Your task to perform on an android device: Search for seafood restaurants on Google Maps Image 0: 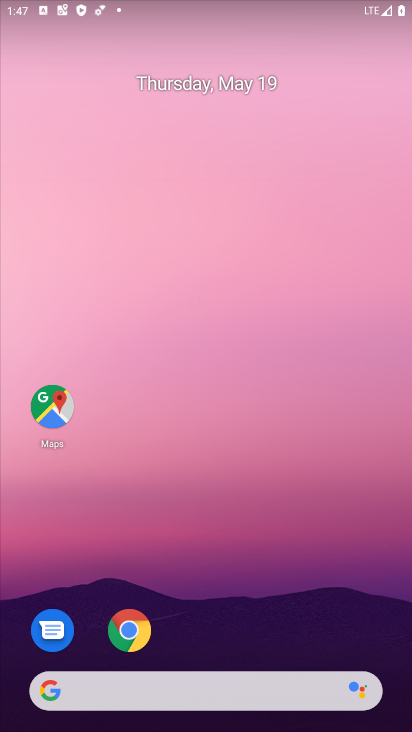
Step 0: click (50, 405)
Your task to perform on an android device: Search for seafood restaurants on Google Maps Image 1: 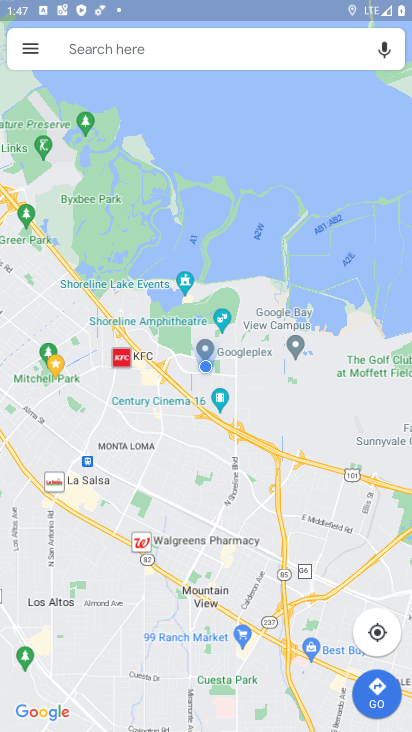
Step 1: click (119, 41)
Your task to perform on an android device: Search for seafood restaurants on Google Maps Image 2: 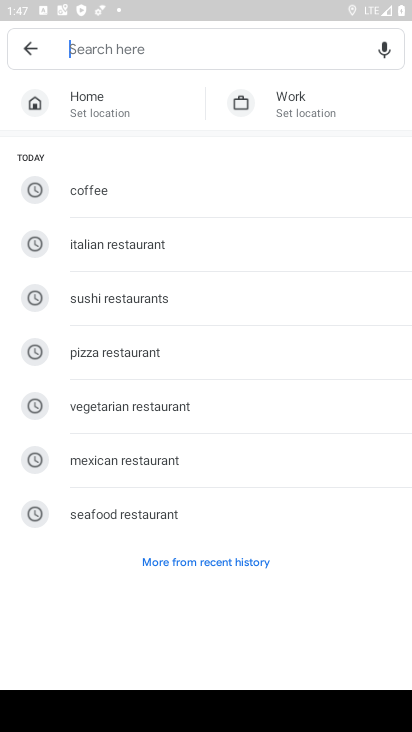
Step 2: type "seafood restaurants"
Your task to perform on an android device: Search for seafood restaurants on Google Maps Image 3: 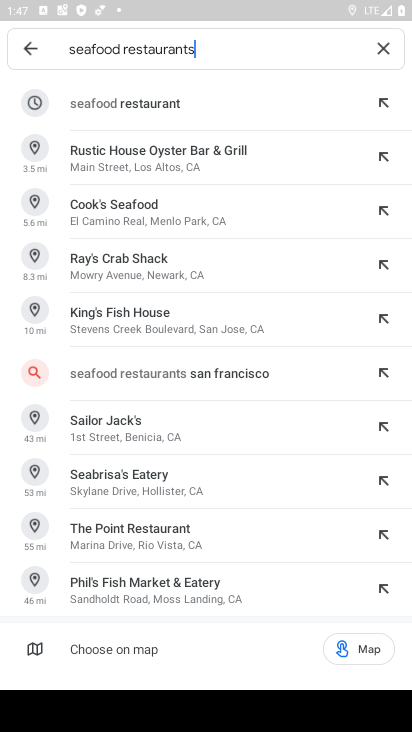
Step 3: click (125, 105)
Your task to perform on an android device: Search for seafood restaurants on Google Maps Image 4: 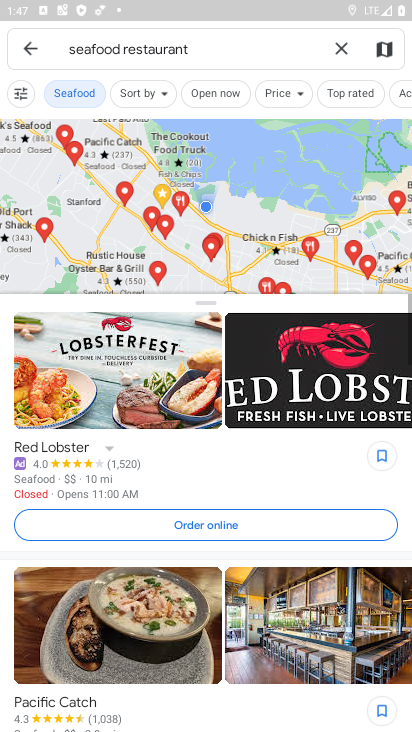
Step 4: task complete